Your task to perform on an android device: Go to settings Image 0: 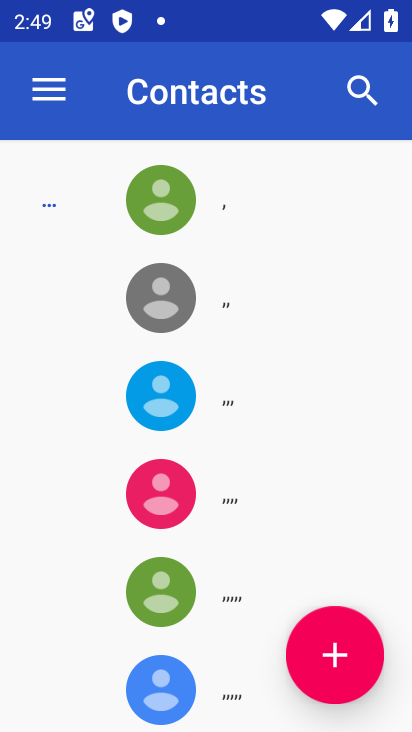
Step 0: press home button
Your task to perform on an android device: Go to settings Image 1: 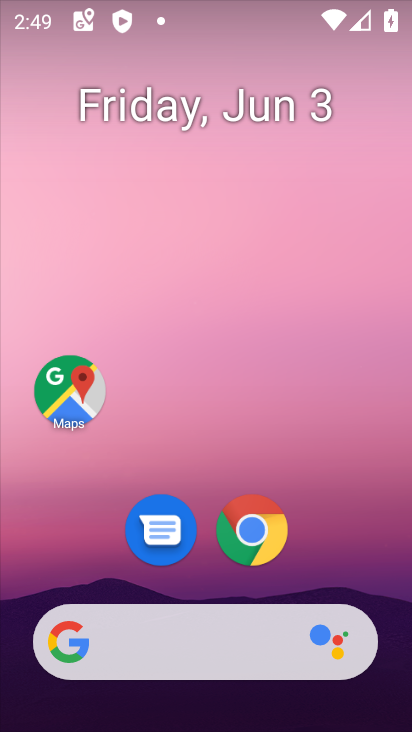
Step 1: drag from (352, 544) to (240, 108)
Your task to perform on an android device: Go to settings Image 2: 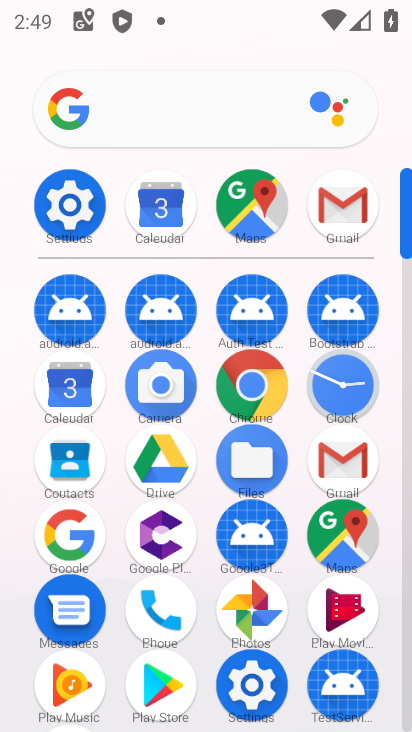
Step 2: click (68, 199)
Your task to perform on an android device: Go to settings Image 3: 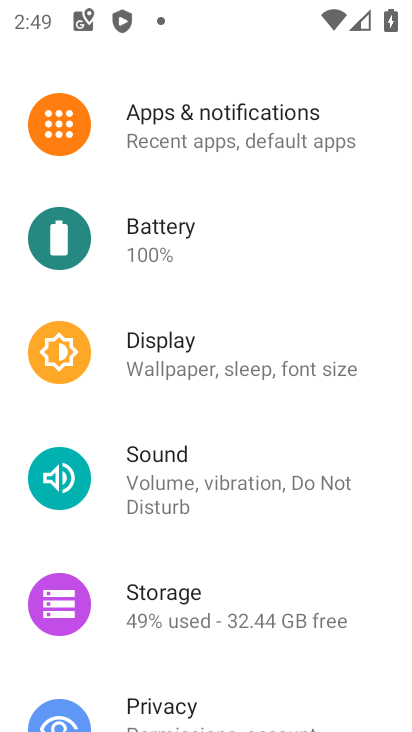
Step 3: task complete